Your task to perform on an android device: Open sound settings Image 0: 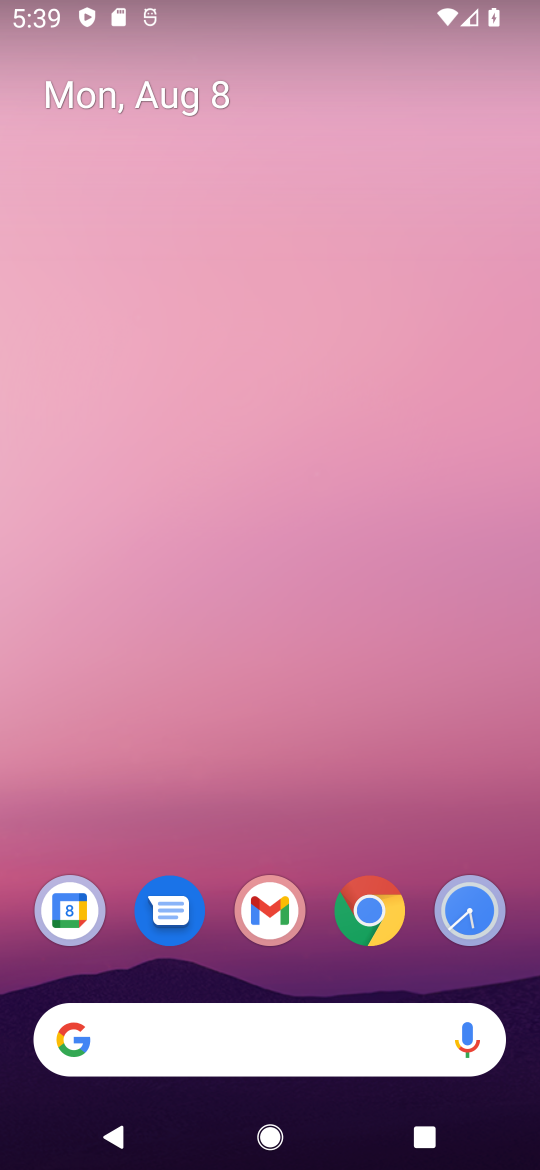
Step 0: drag from (214, 1059) to (303, 488)
Your task to perform on an android device: Open sound settings Image 1: 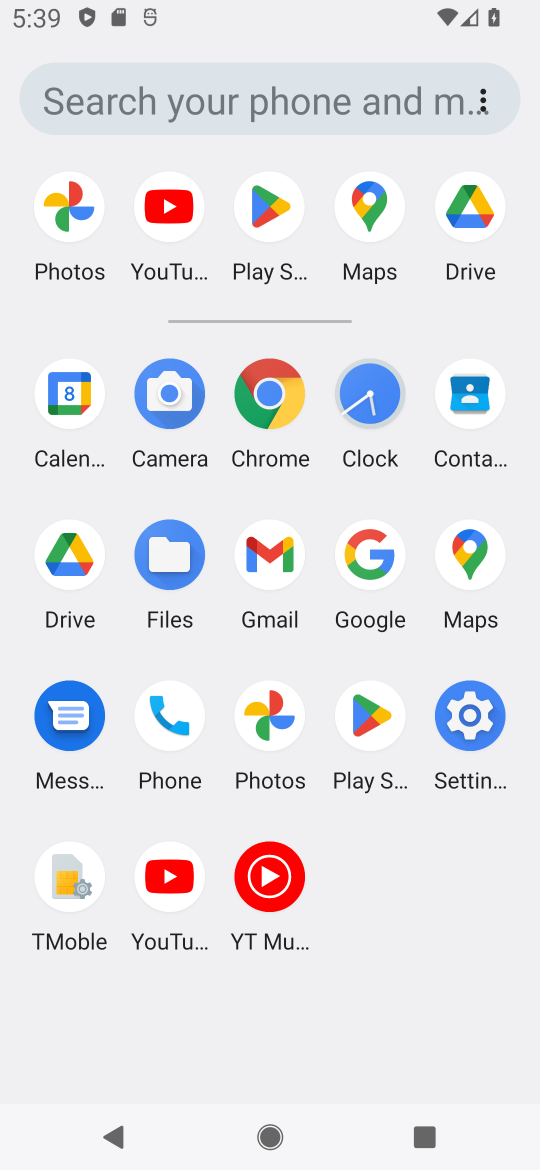
Step 1: click (469, 713)
Your task to perform on an android device: Open sound settings Image 2: 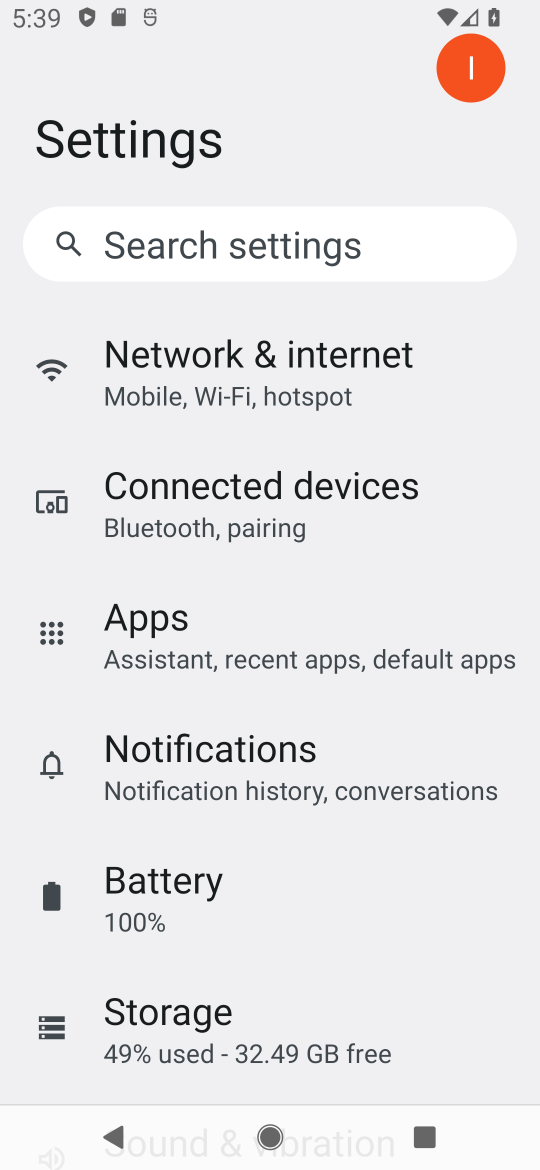
Step 2: drag from (283, 904) to (431, 431)
Your task to perform on an android device: Open sound settings Image 3: 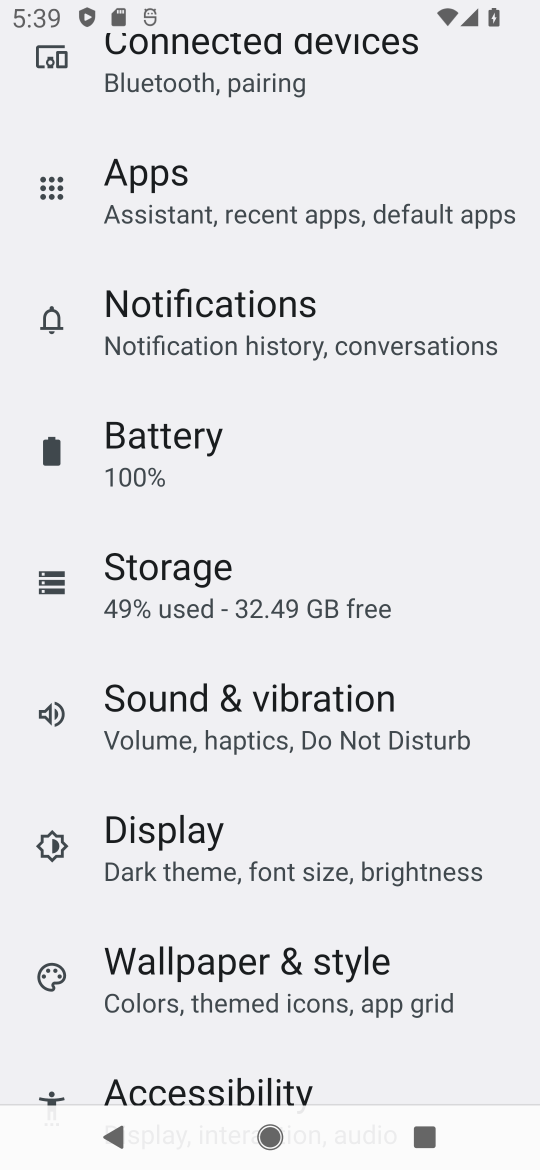
Step 3: click (275, 716)
Your task to perform on an android device: Open sound settings Image 4: 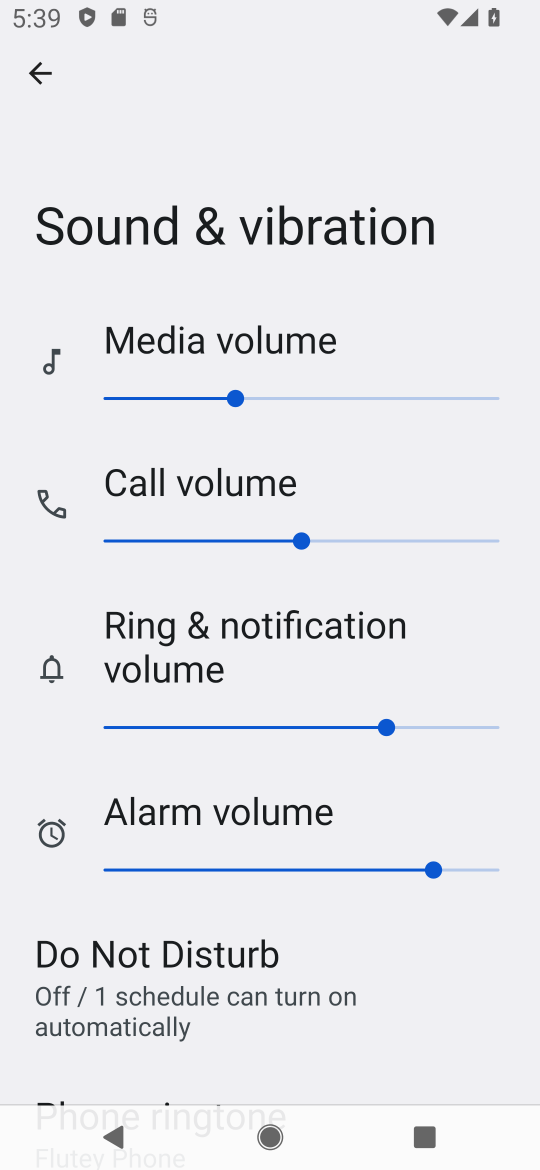
Step 4: task complete